Your task to perform on an android device: Show me the alarms in the clock app Image 0: 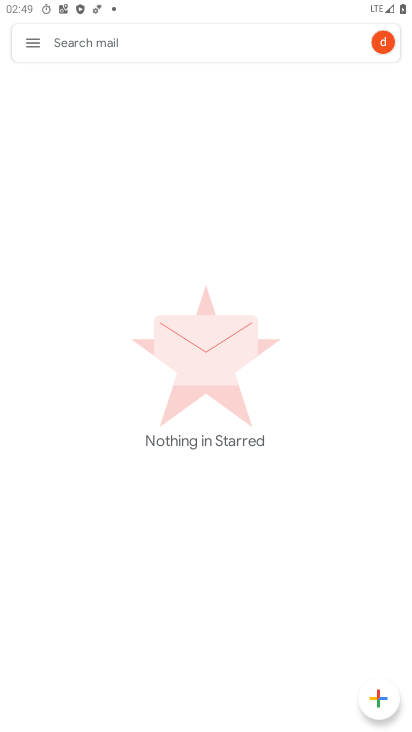
Step 0: press home button
Your task to perform on an android device: Show me the alarms in the clock app Image 1: 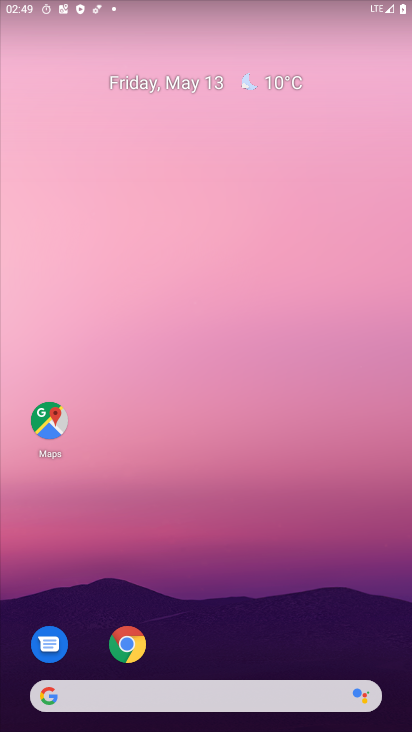
Step 1: drag from (277, 694) to (223, 6)
Your task to perform on an android device: Show me the alarms in the clock app Image 2: 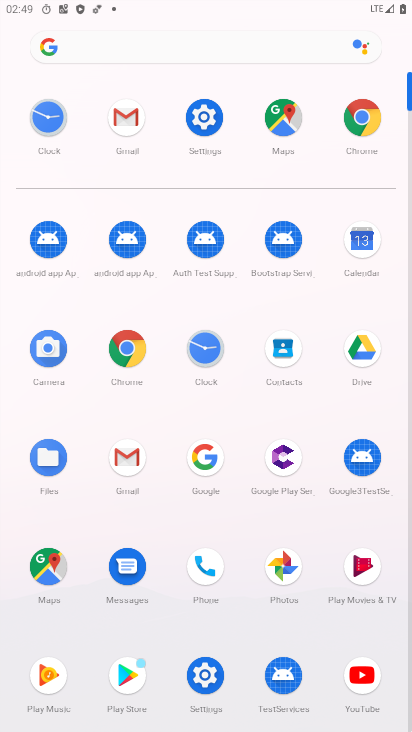
Step 2: click (199, 351)
Your task to perform on an android device: Show me the alarms in the clock app Image 3: 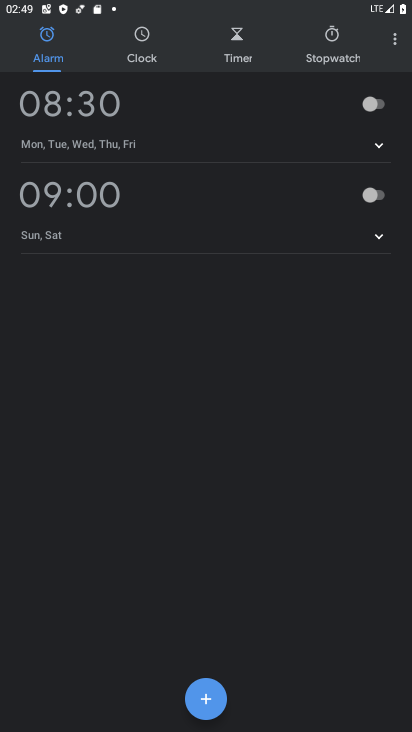
Step 3: task complete